Your task to perform on an android device: open app "Viber Messenger" Image 0: 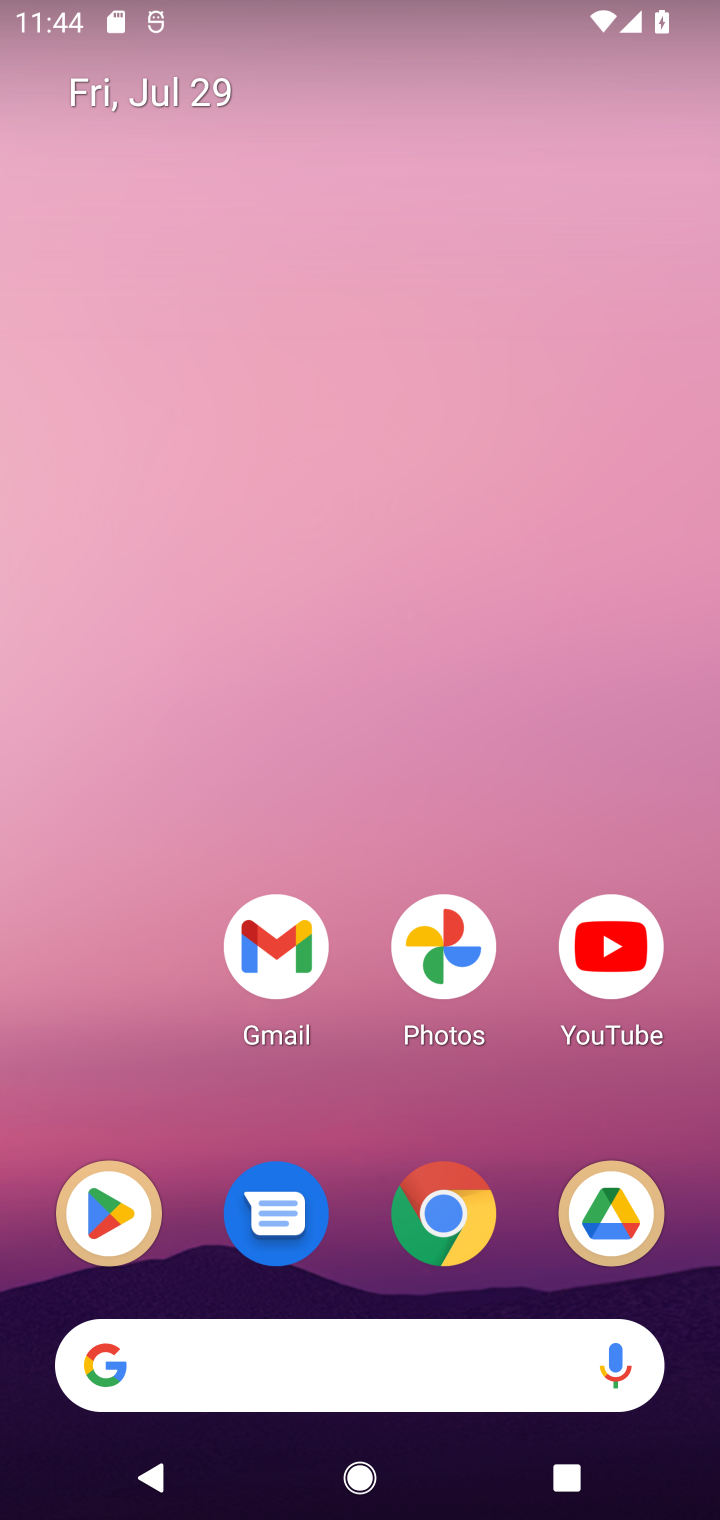
Step 0: drag from (421, 1446) to (421, 615)
Your task to perform on an android device: open app "Viber Messenger" Image 1: 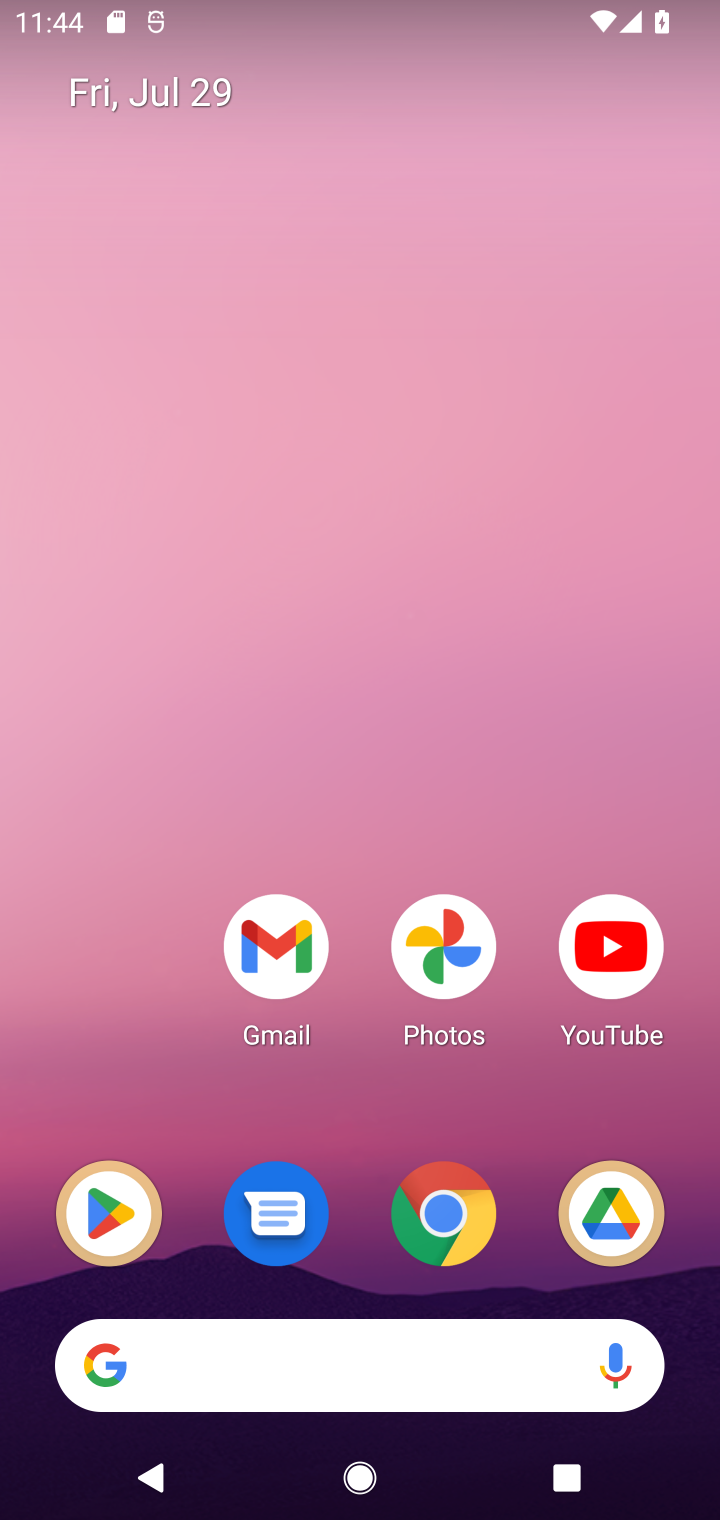
Step 1: drag from (421, 1224) to (363, 730)
Your task to perform on an android device: open app "Viber Messenger" Image 2: 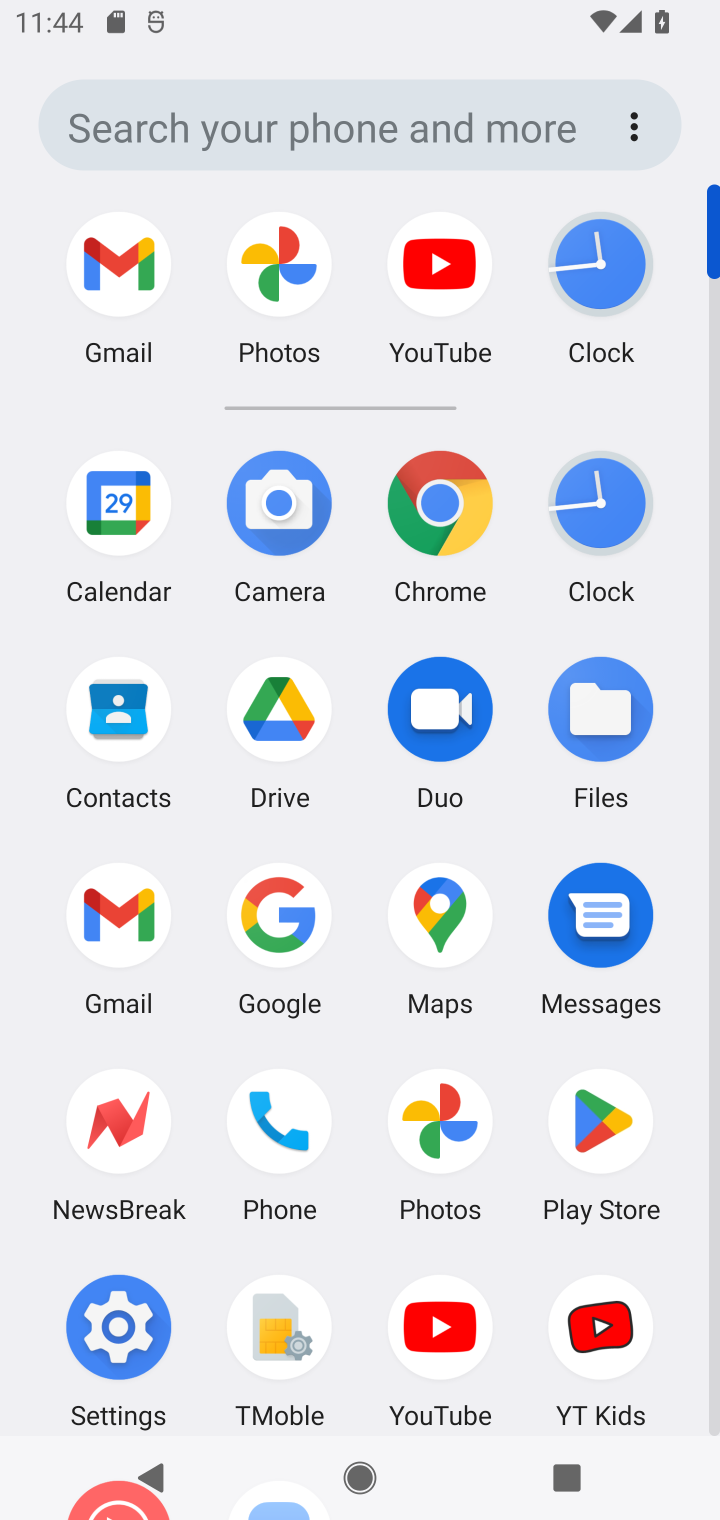
Step 2: click (600, 1110)
Your task to perform on an android device: open app "Viber Messenger" Image 3: 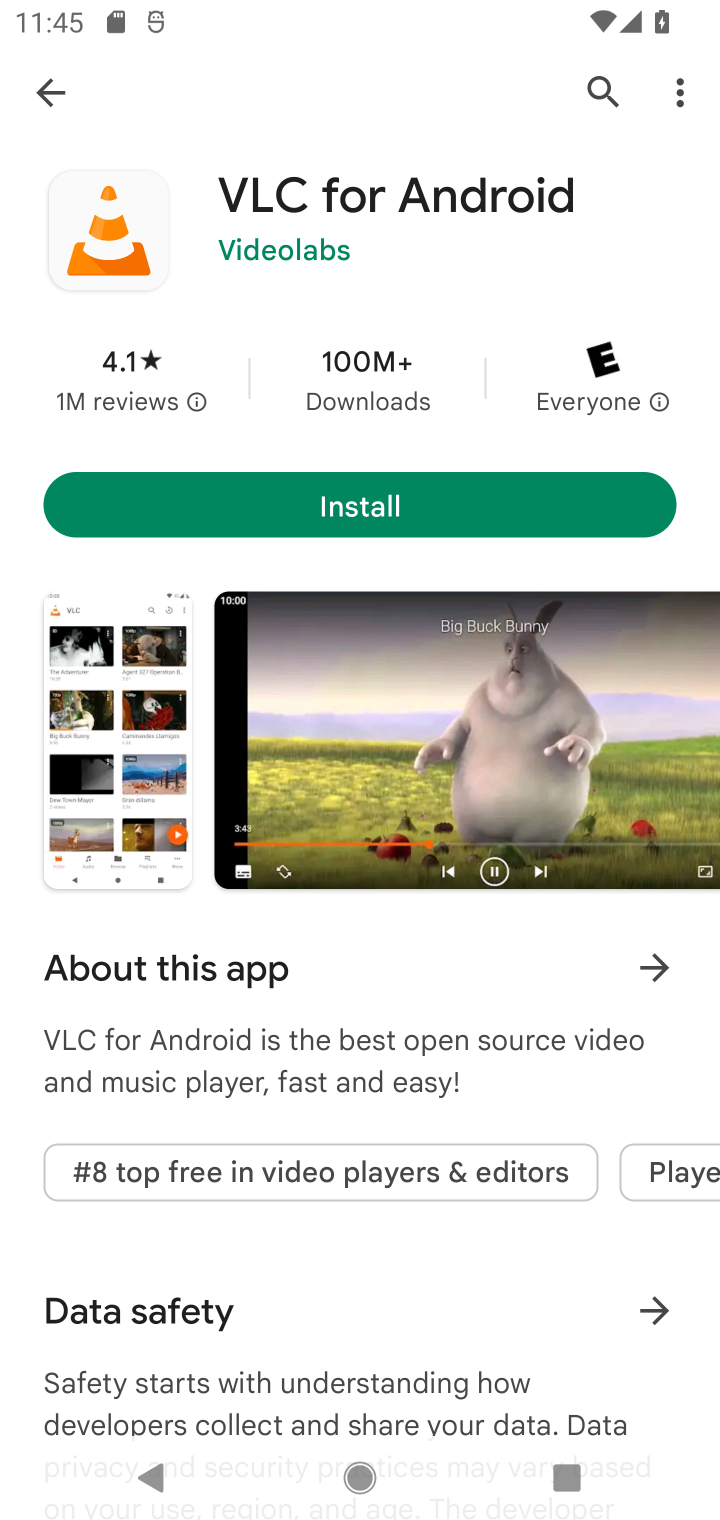
Step 3: click (601, 89)
Your task to perform on an android device: open app "Viber Messenger" Image 4: 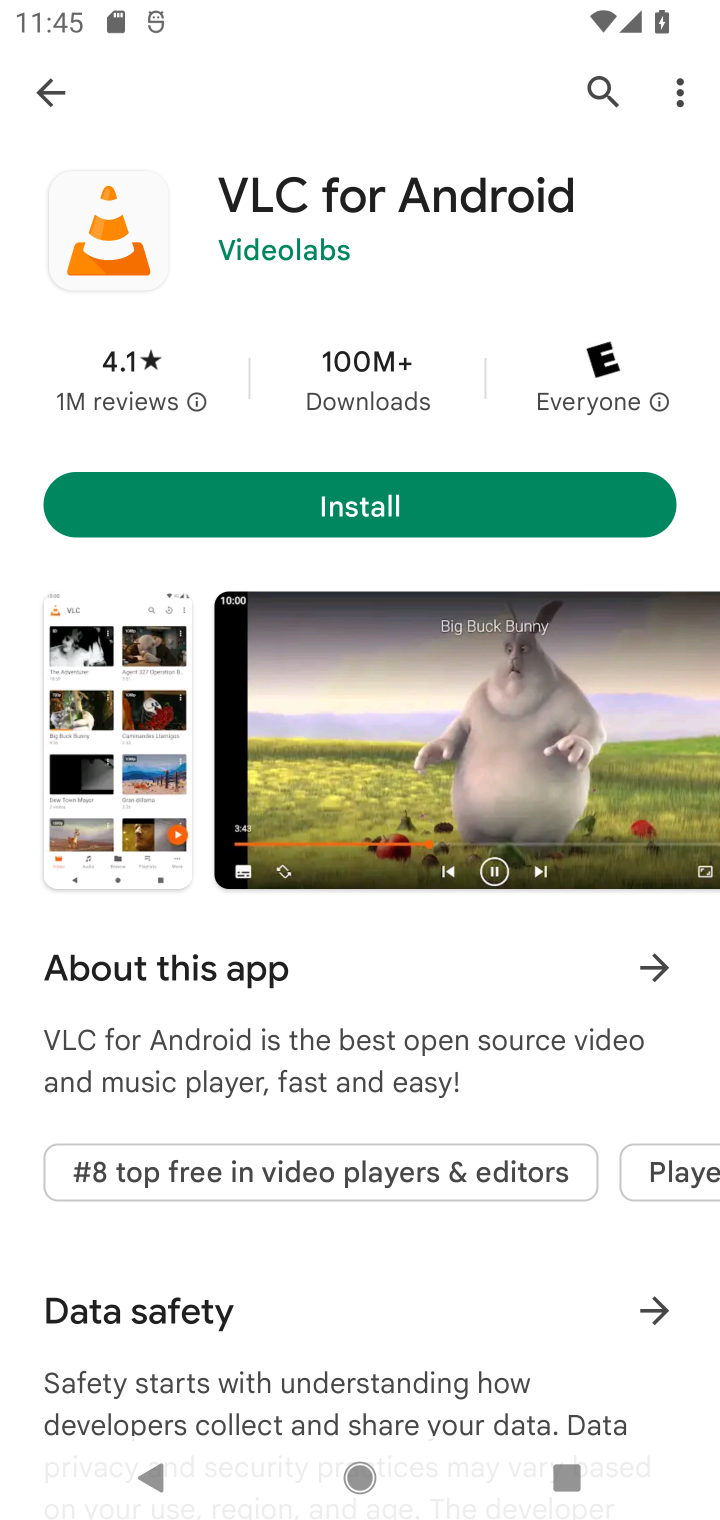
Step 4: click (596, 77)
Your task to perform on an android device: open app "Viber Messenger" Image 5: 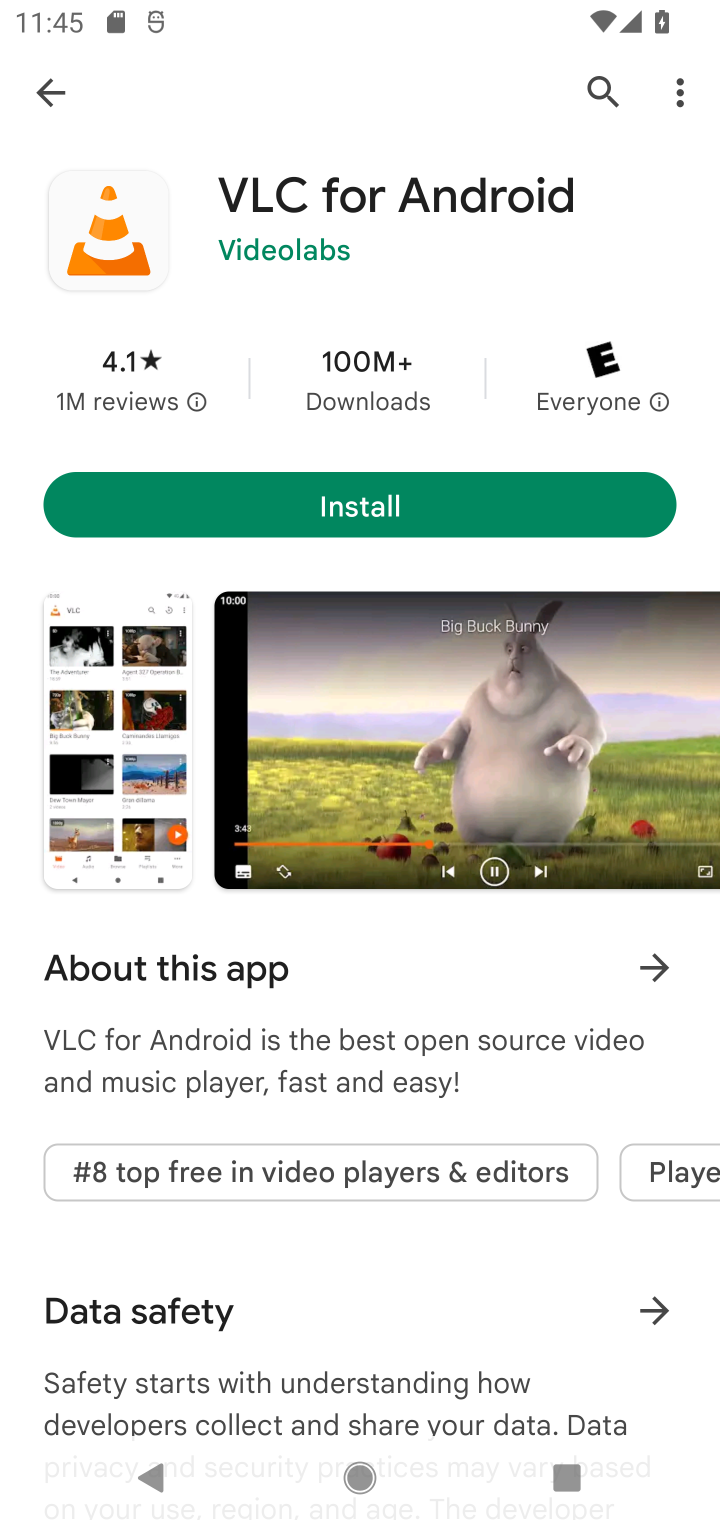
Step 5: click (601, 81)
Your task to perform on an android device: open app "Viber Messenger" Image 6: 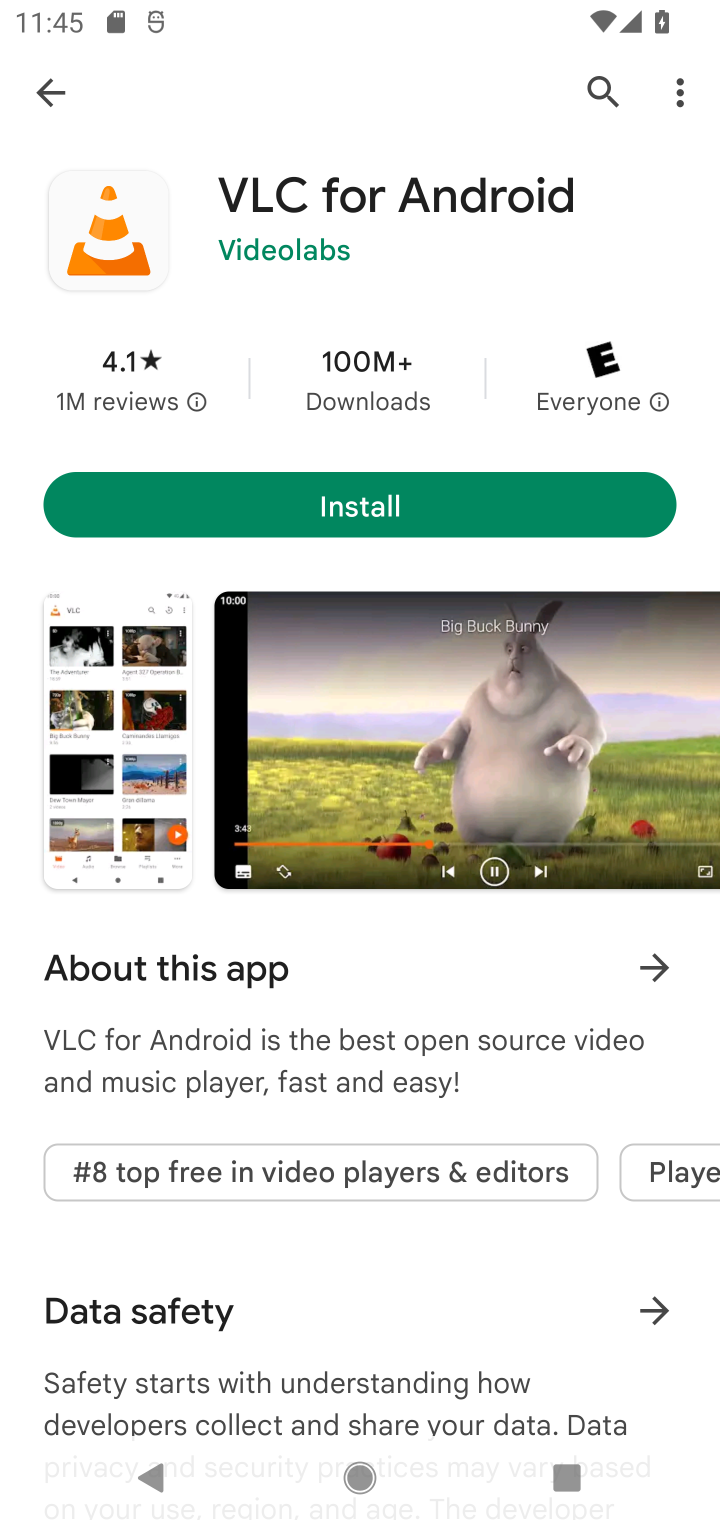
Step 6: click (607, 84)
Your task to perform on an android device: open app "Viber Messenger" Image 7: 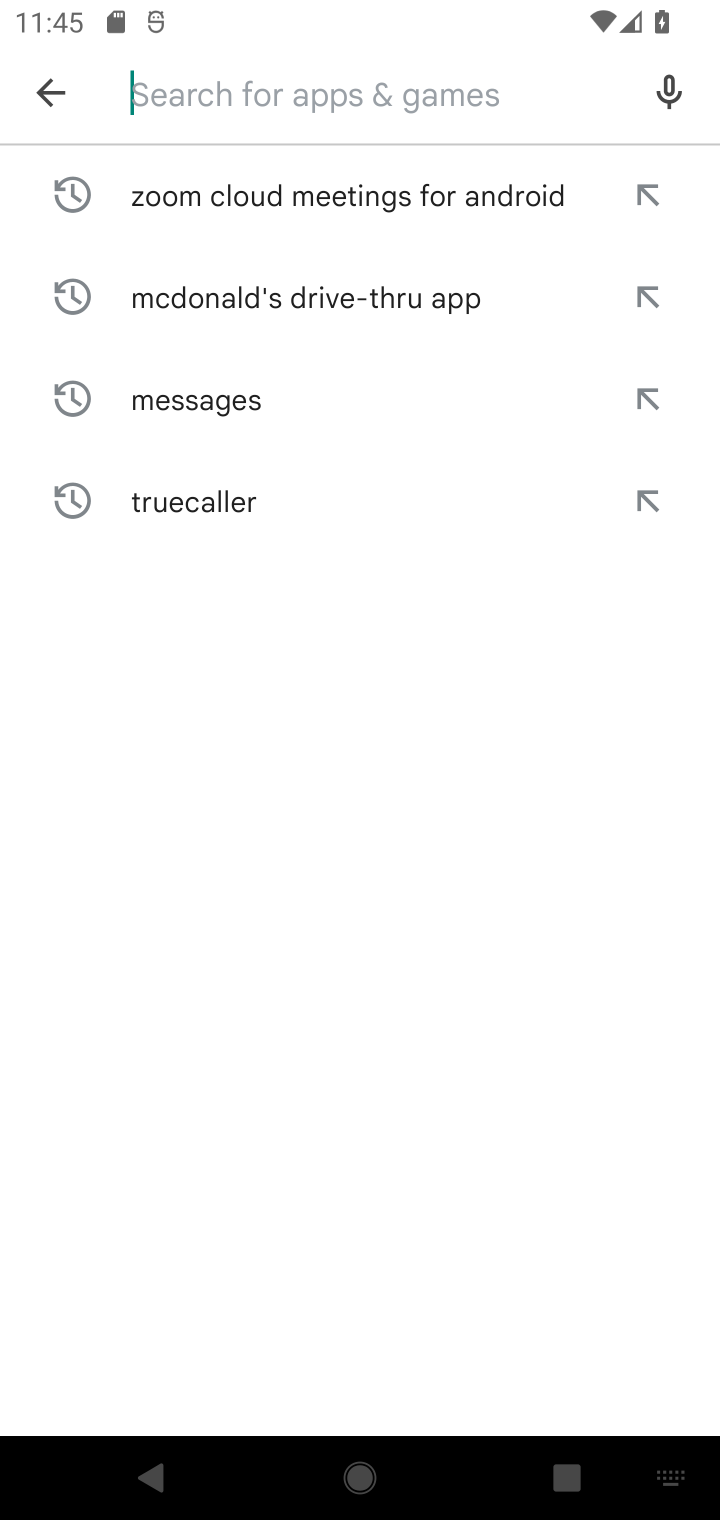
Step 7: type "Viber Messenger"
Your task to perform on an android device: open app "Viber Messenger" Image 8: 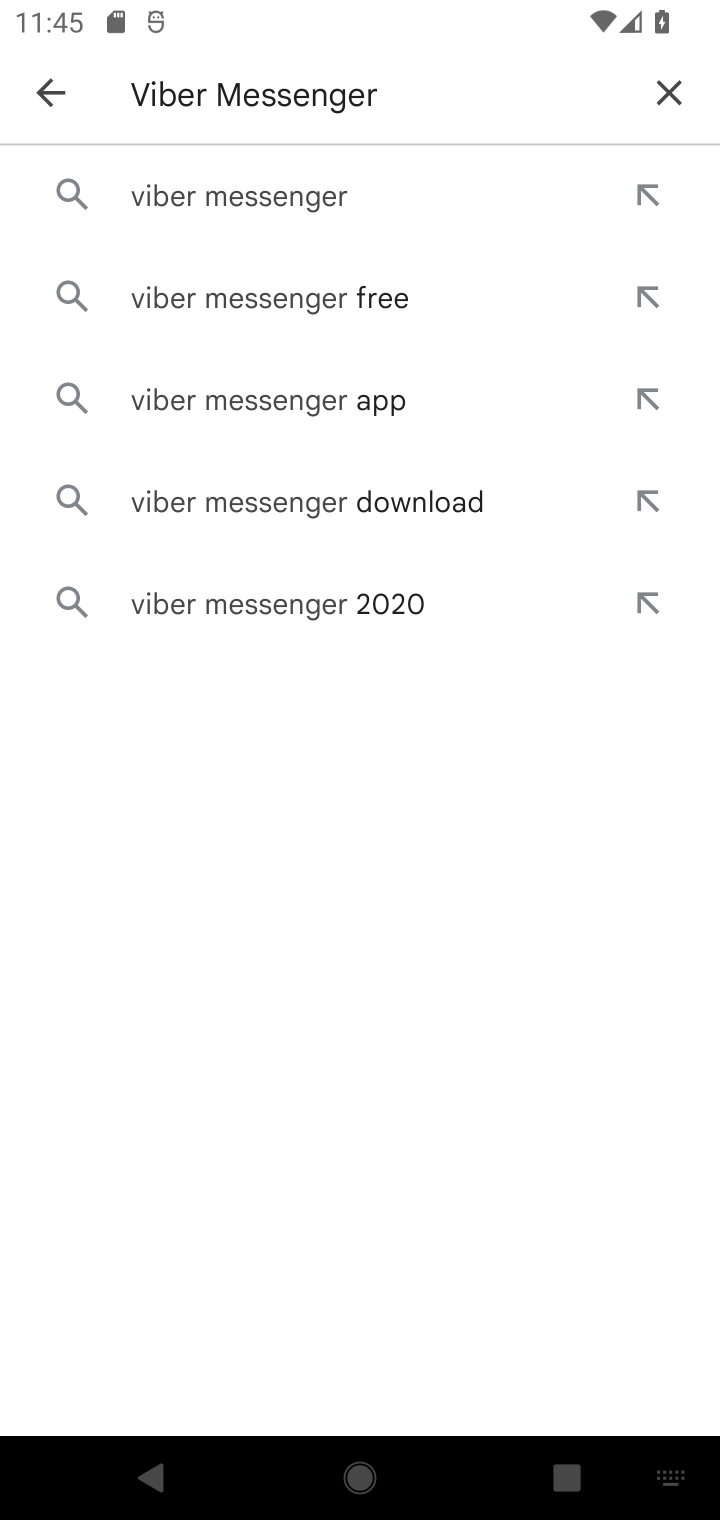
Step 8: click (193, 199)
Your task to perform on an android device: open app "Viber Messenger" Image 9: 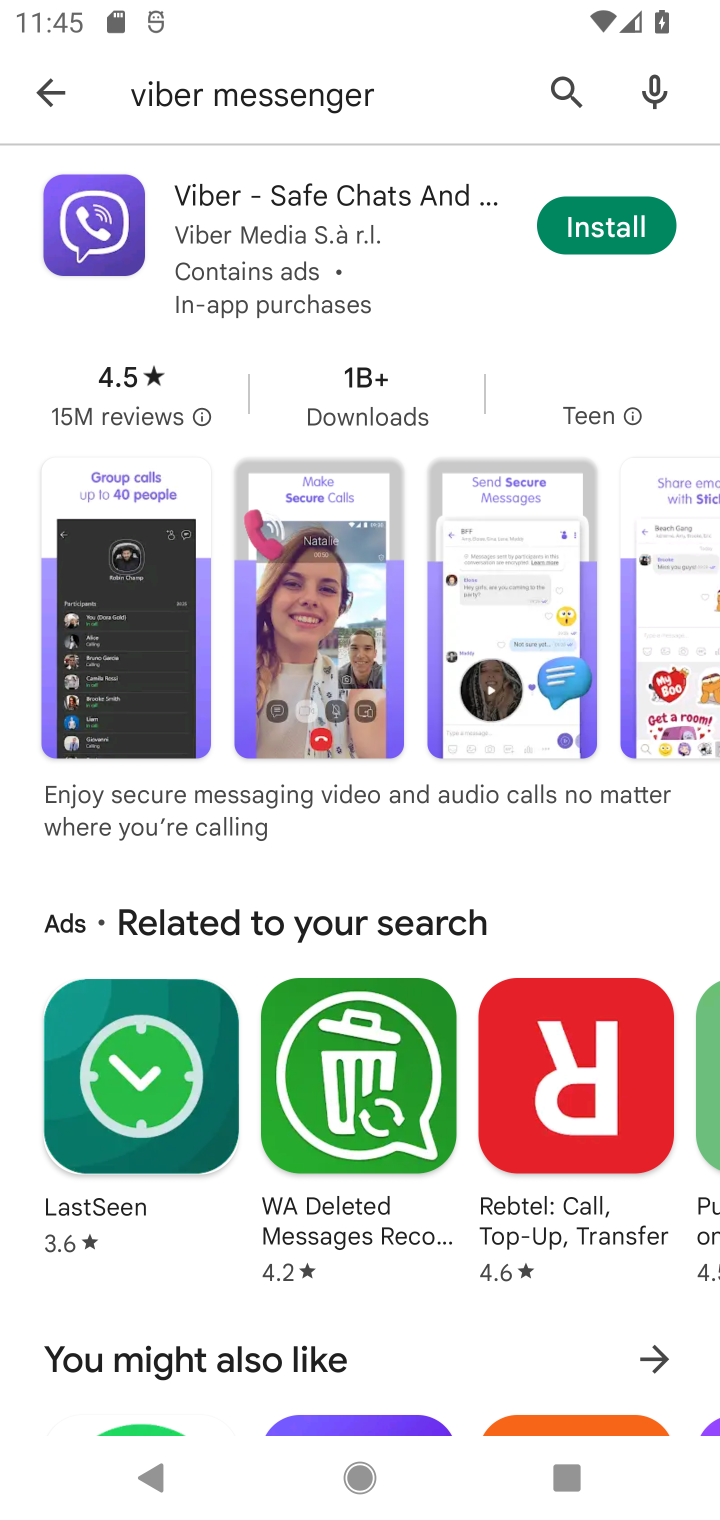
Step 9: task complete